Your task to perform on an android device: refresh tabs in the chrome app Image 0: 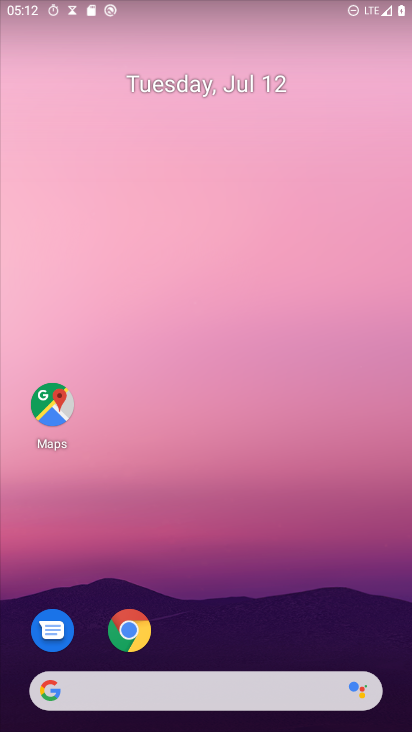
Step 0: drag from (262, 680) to (213, 115)
Your task to perform on an android device: refresh tabs in the chrome app Image 1: 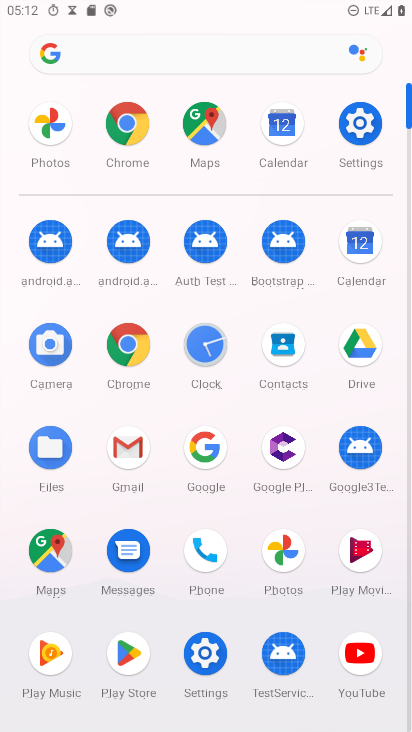
Step 1: click (123, 347)
Your task to perform on an android device: refresh tabs in the chrome app Image 2: 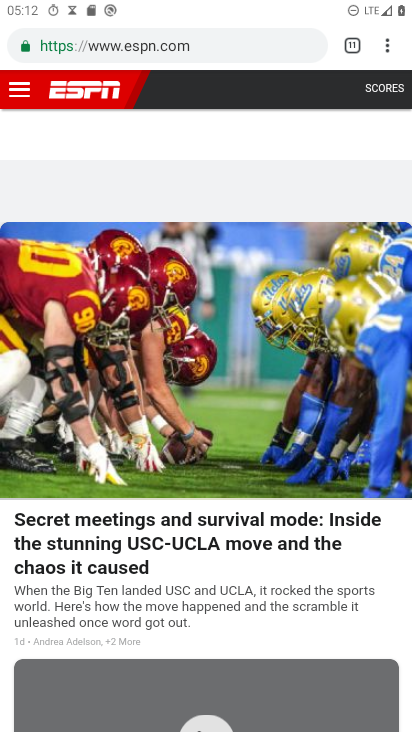
Step 2: click (379, 44)
Your task to perform on an android device: refresh tabs in the chrome app Image 3: 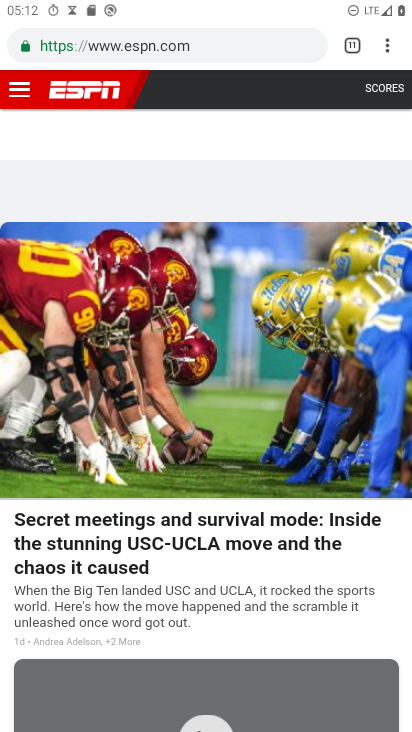
Step 3: task complete